Your task to perform on an android device: turn on javascript in the chrome app Image 0: 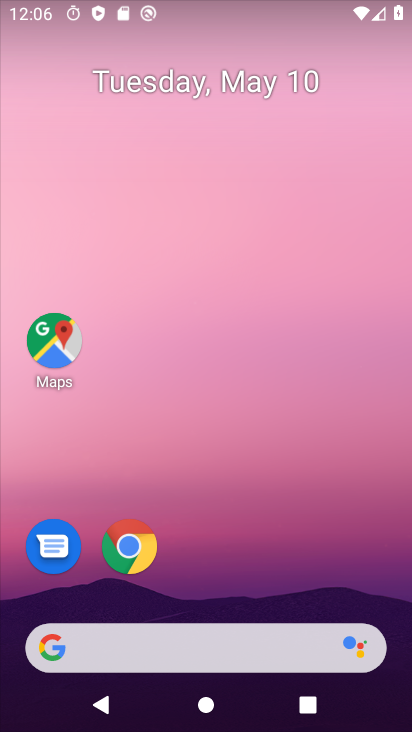
Step 0: click (130, 554)
Your task to perform on an android device: turn on javascript in the chrome app Image 1: 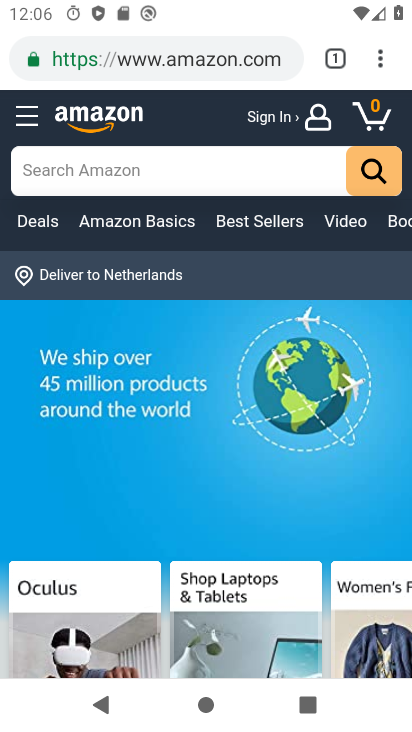
Step 1: drag from (391, 40) to (229, 584)
Your task to perform on an android device: turn on javascript in the chrome app Image 2: 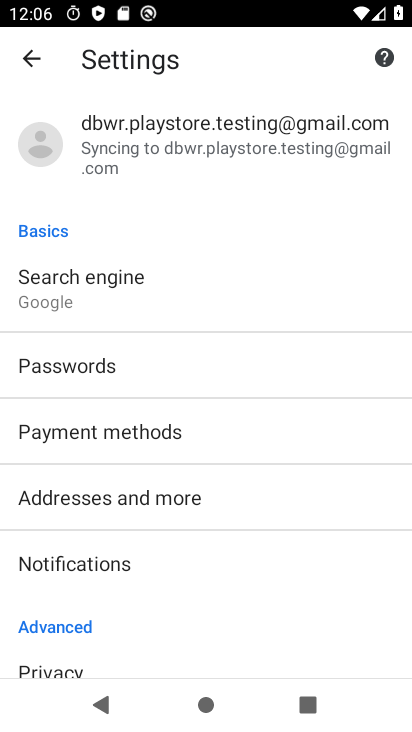
Step 2: drag from (173, 664) to (64, 17)
Your task to perform on an android device: turn on javascript in the chrome app Image 3: 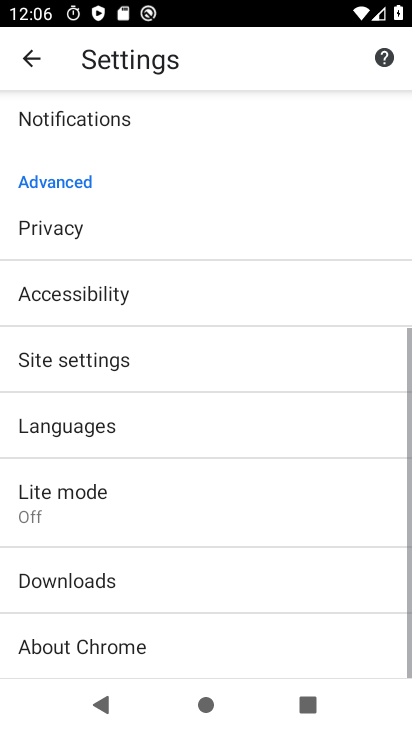
Step 3: drag from (262, 507) to (207, 54)
Your task to perform on an android device: turn on javascript in the chrome app Image 4: 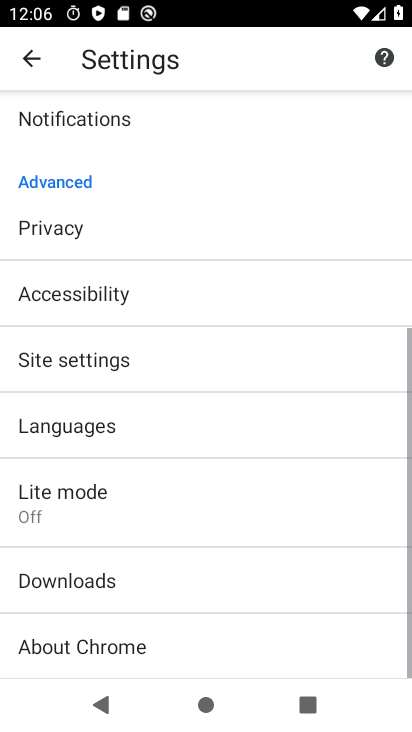
Step 4: click (100, 363)
Your task to perform on an android device: turn on javascript in the chrome app Image 5: 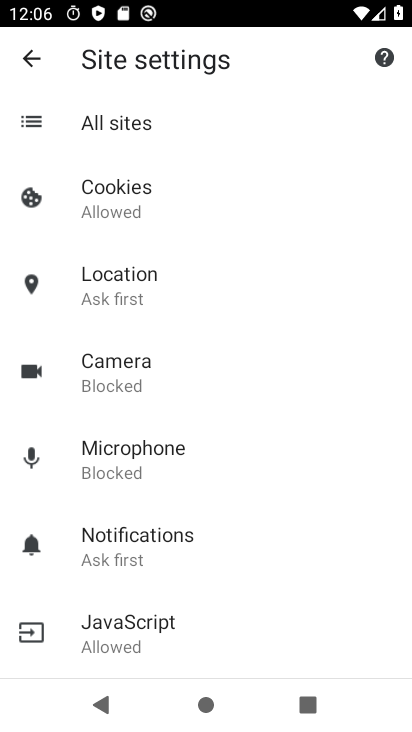
Step 5: click (143, 627)
Your task to perform on an android device: turn on javascript in the chrome app Image 6: 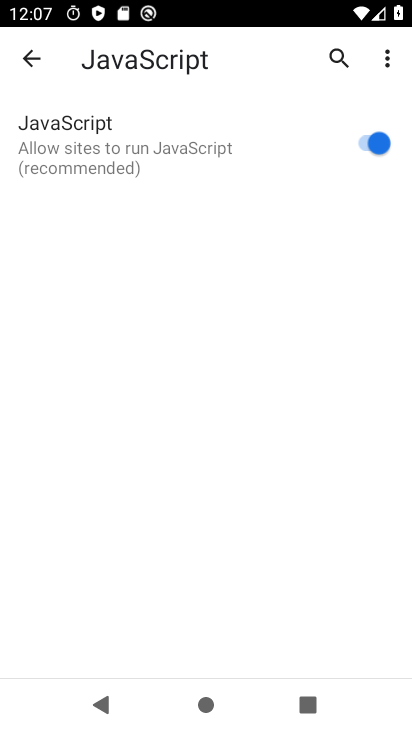
Step 6: task complete